Your task to perform on an android device: Open Google Image 0: 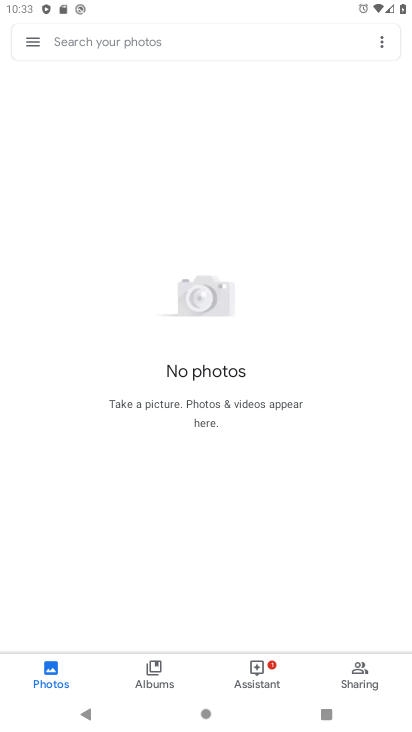
Step 0: press home button
Your task to perform on an android device: Open Google Image 1: 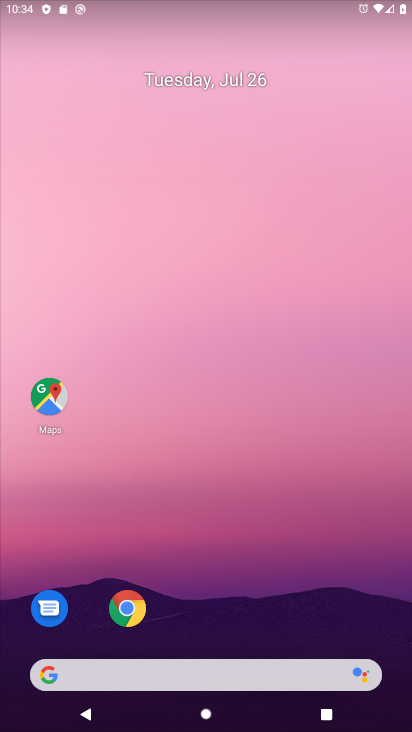
Step 1: drag from (233, 704) to (234, 131)
Your task to perform on an android device: Open Google Image 2: 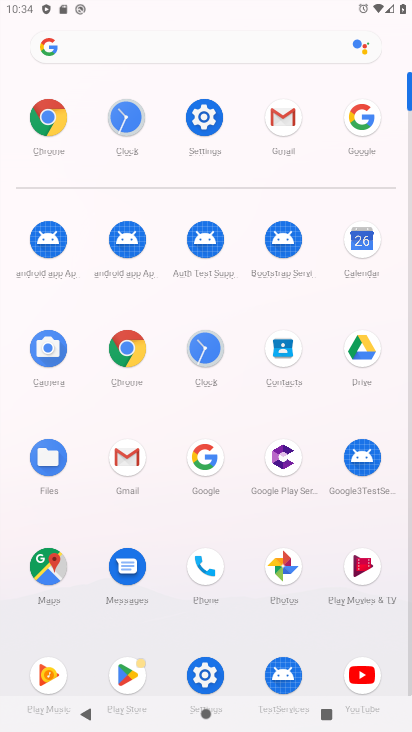
Step 2: click (207, 453)
Your task to perform on an android device: Open Google Image 3: 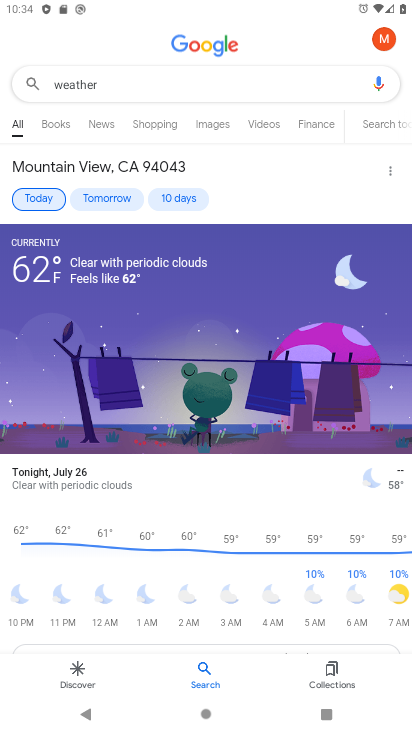
Step 3: task complete